Your task to perform on an android device: turn off sleep mode Image 0: 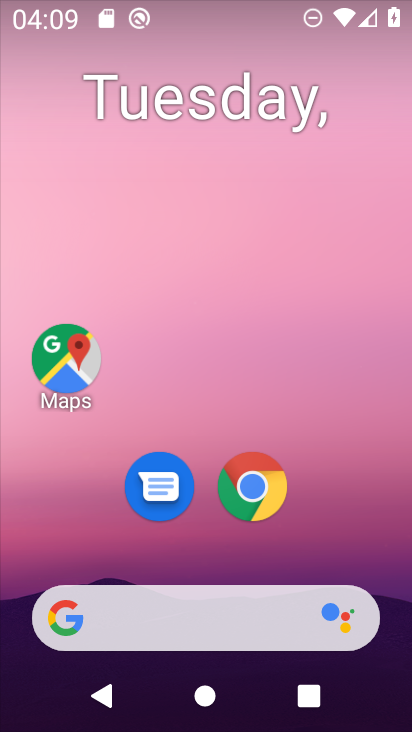
Step 0: drag from (203, 576) to (274, 1)
Your task to perform on an android device: turn off sleep mode Image 1: 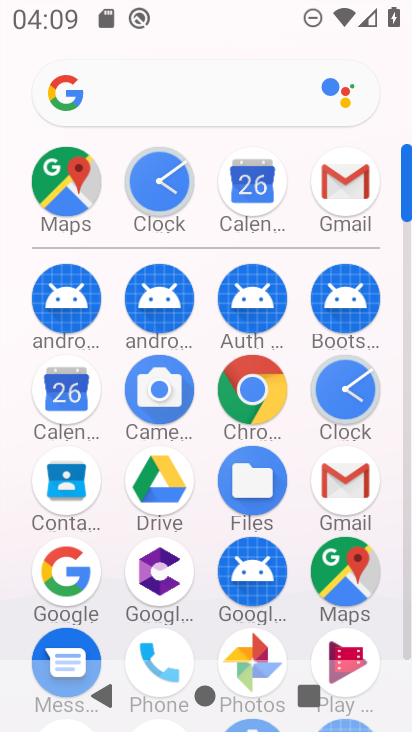
Step 1: drag from (202, 586) to (259, 104)
Your task to perform on an android device: turn off sleep mode Image 2: 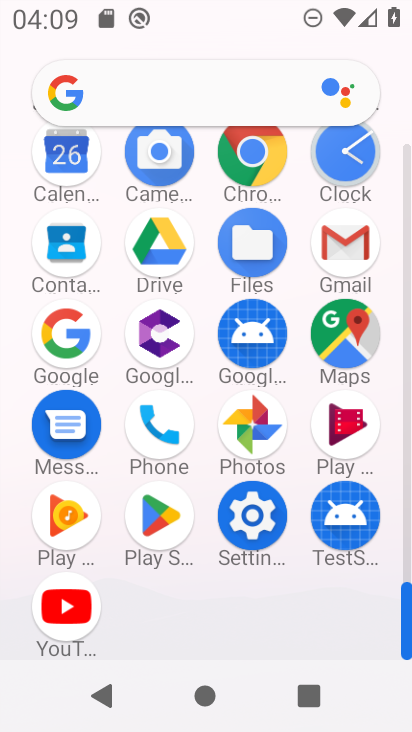
Step 2: click (255, 516)
Your task to perform on an android device: turn off sleep mode Image 3: 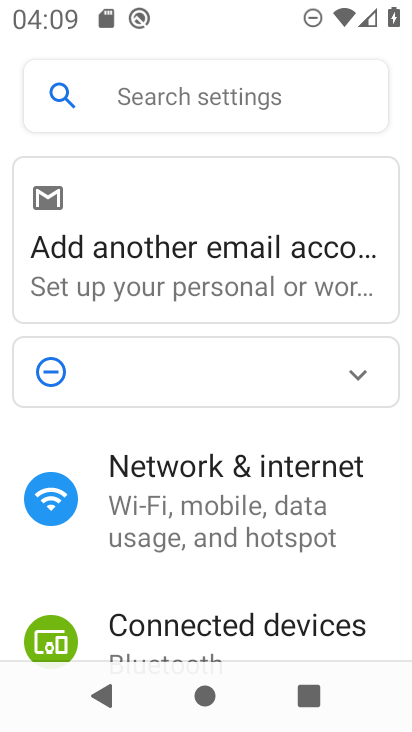
Step 3: click (194, 97)
Your task to perform on an android device: turn off sleep mode Image 4: 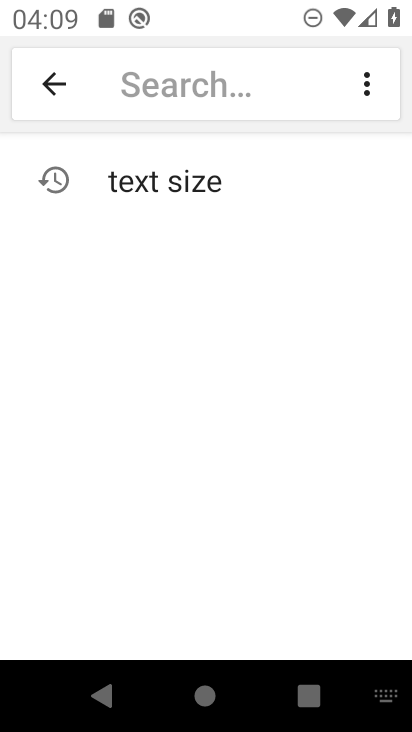
Step 4: type "sleep mode"
Your task to perform on an android device: turn off sleep mode Image 5: 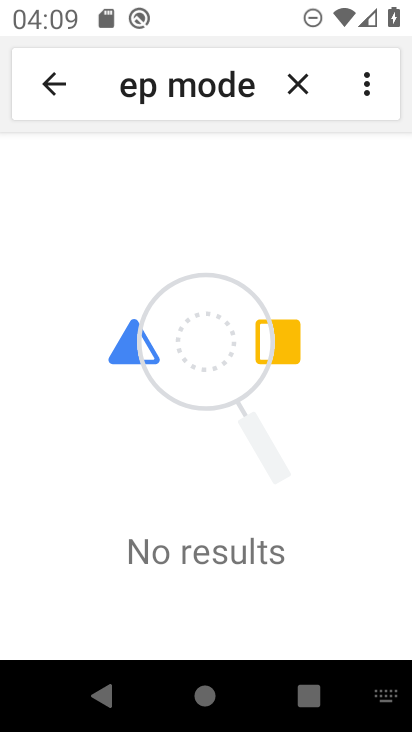
Step 5: task complete